Your task to perform on an android device: Open the map Image 0: 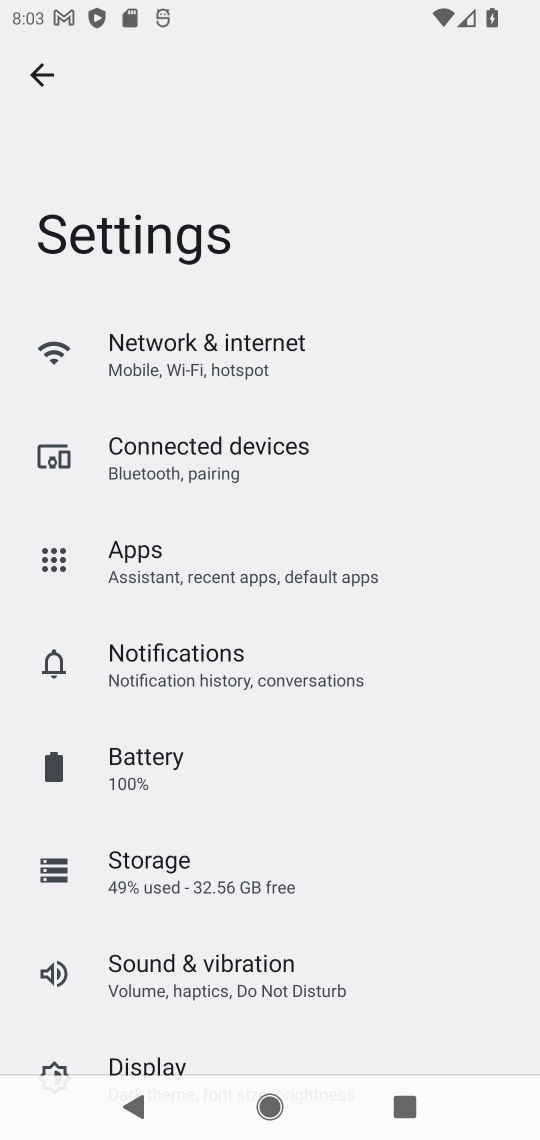
Step 0: press home button
Your task to perform on an android device: Open the map Image 1: 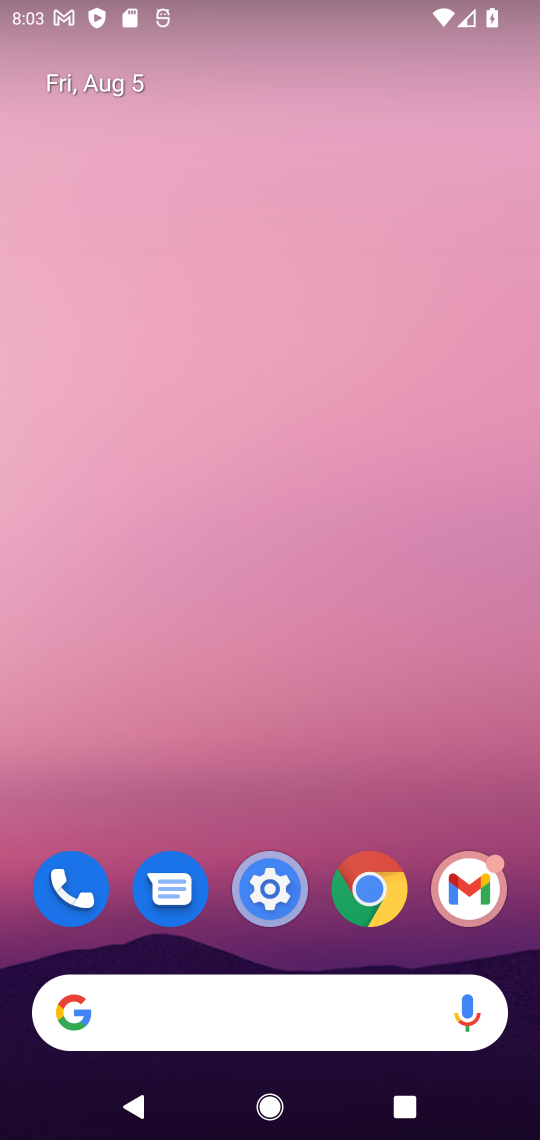
Step 1: drag from (239, 991) to (243, 339)
Your task to perform on an android device: Open the map Image 2: 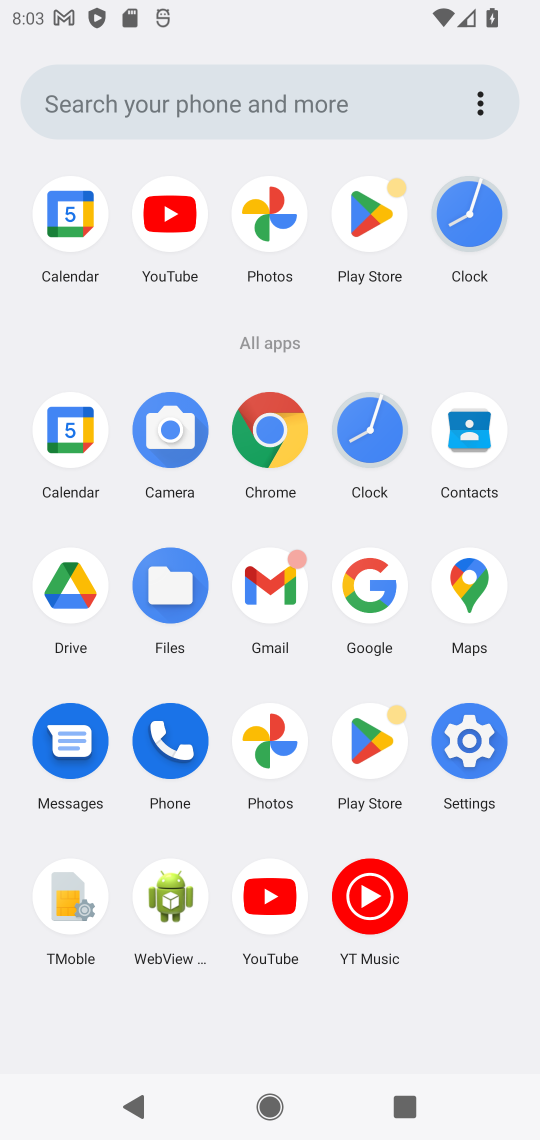
Step 2: click (452, 586)
Your task to perform on an android device: Open the map Image 3: 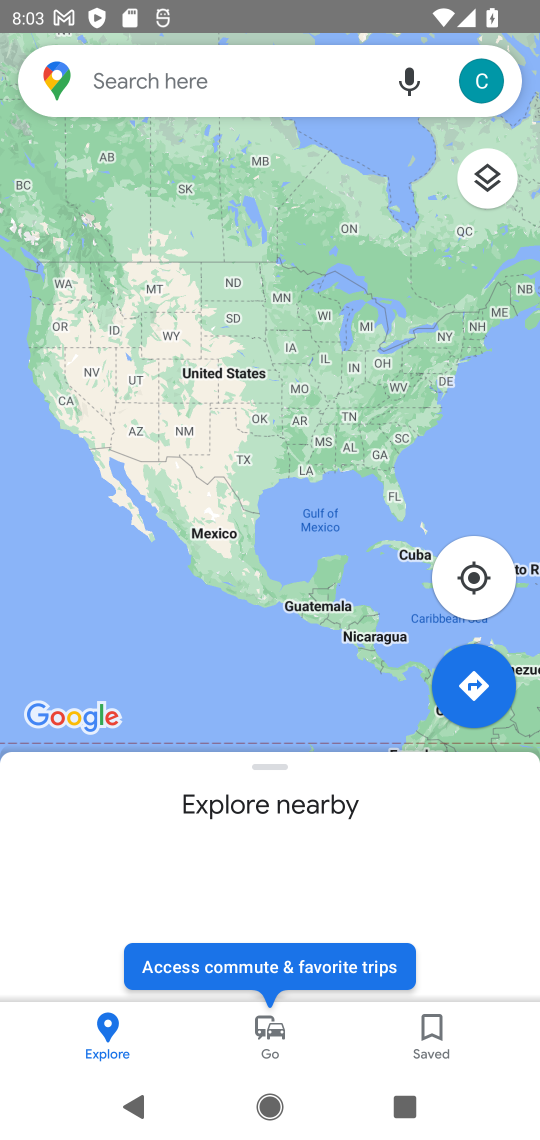
Step 3: task complete